Your task to perform on an android device: turn vacation reply on in the gmail app Image 0: 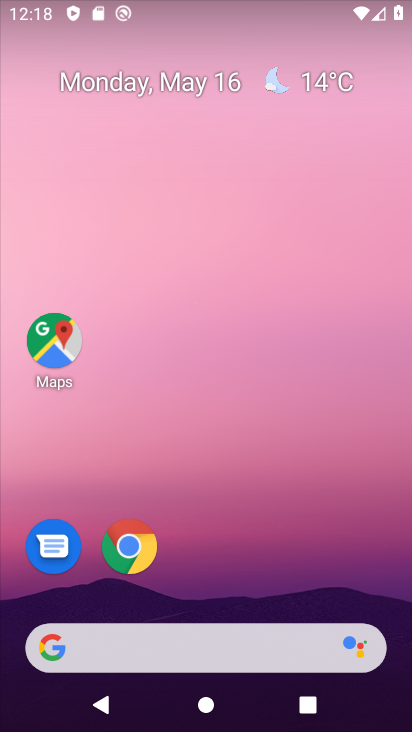
Step 0: drag from (225, 660) to (381, 299)
Your task to perform on an android device: turn vacation reply on in the gmail app Image 1: 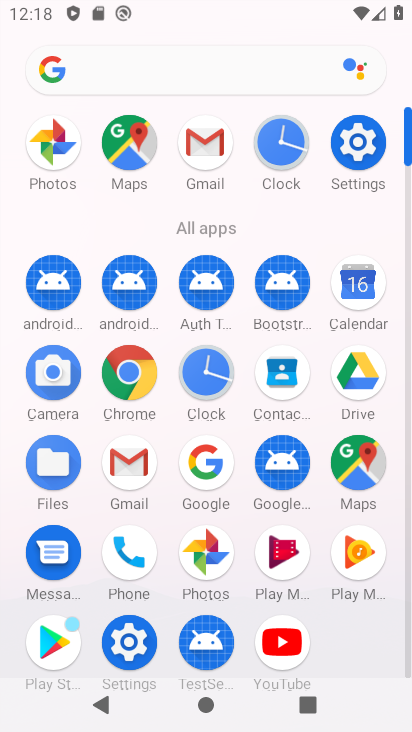
Step 1: click (124, 467)
Your task to perform on an android device: turn vacation reply on in the gmail app Image 2: 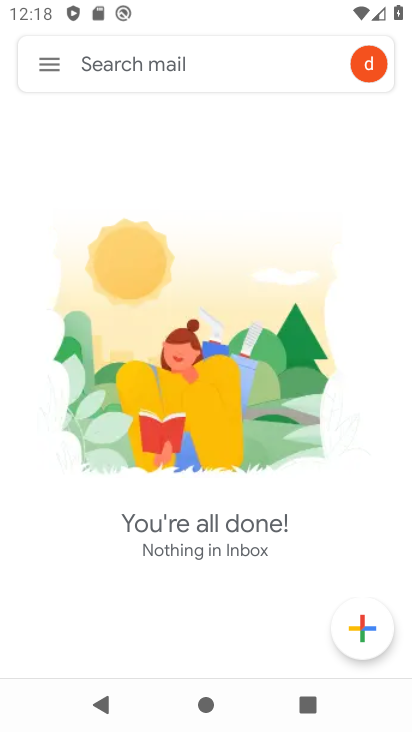
Step 2: click (55, 68)
Your task to perform on an android device: turn vacation reply on in the gmail app Image 3: 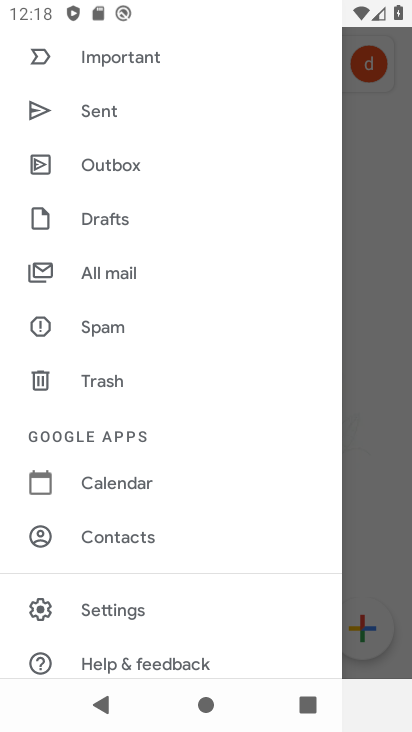
Step 3: click (116, 607)
Your task to perform on an android device: turn vacation reply on in the gmail app Image 4: 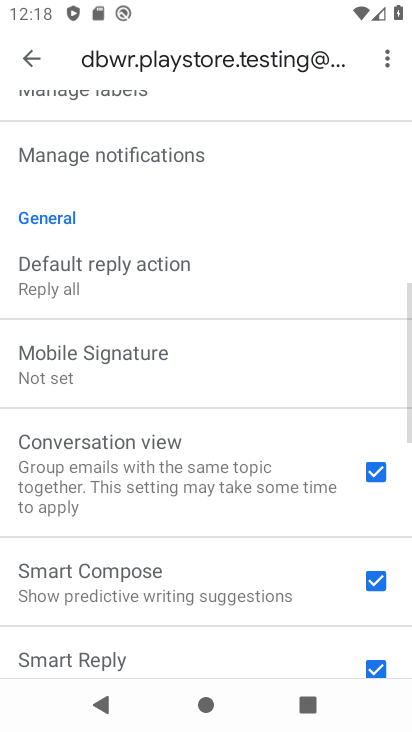
Step 4: drag from (125, 580) to (227, 366)
Your task to perform on an android device: turn vacation reply on in the gmail app Image 5: 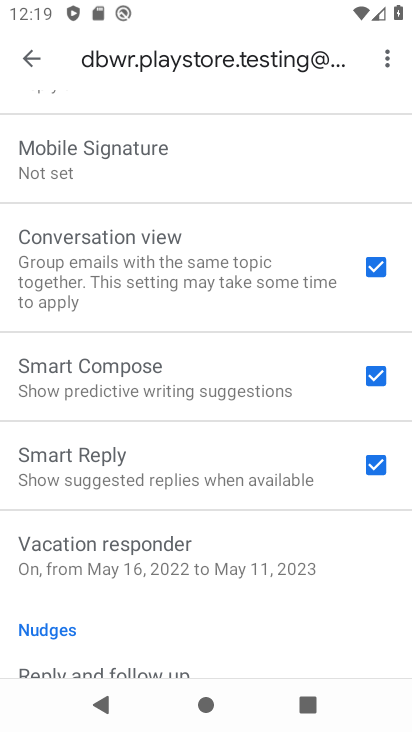
Step 5: drag from (188, 520) to (228, 407)
Your task to perform on an android device: turn vacation reply on in the gmail app Image 6: 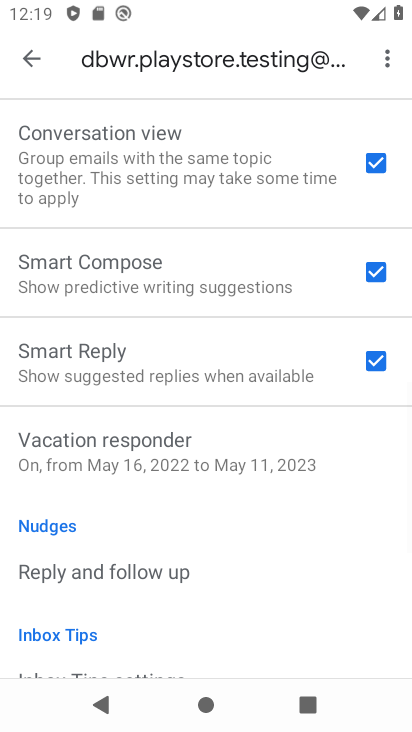
Step 6: click (174, 441)
Your task to perform on an android device: turn vacation reply on in the gmail app Image 7: 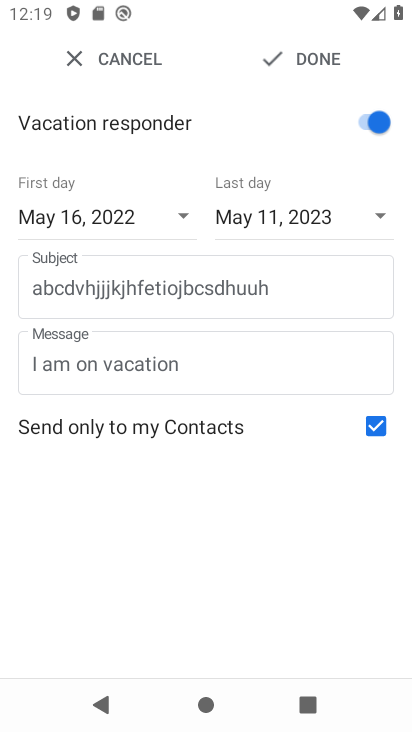
Step 7: task complete